Your task to perform on an android device: What's the weather going to be tomorrow? Image 0: 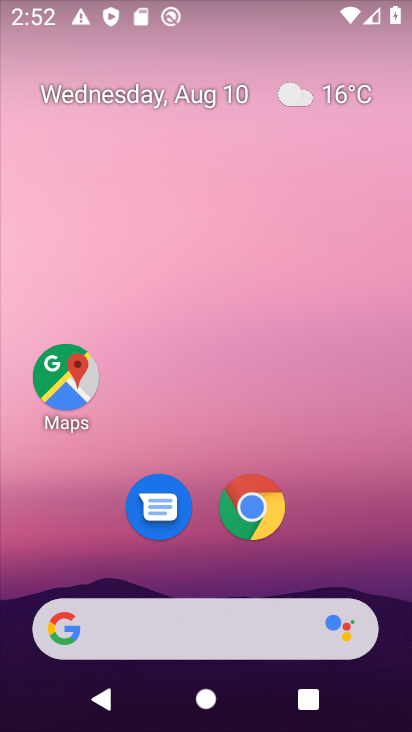
Step 0: click (343, 90)
Your task to perform on an android device: What's the weather going to be tomorrow? Image 1: 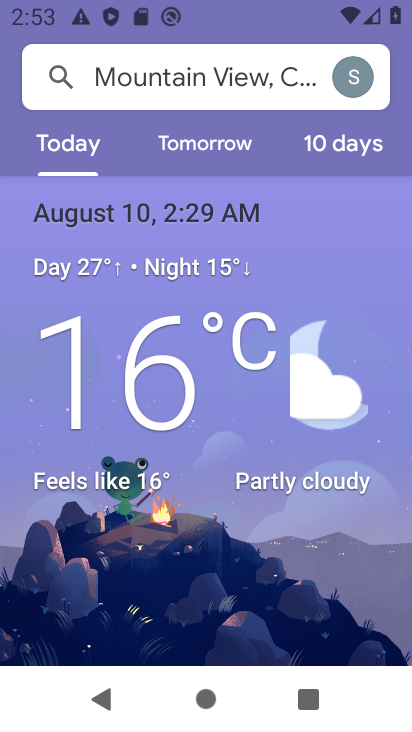
Step 1: click (247, 153)
Your task to perform on an android device: What's the weather going to be tomorrow? Image 2: 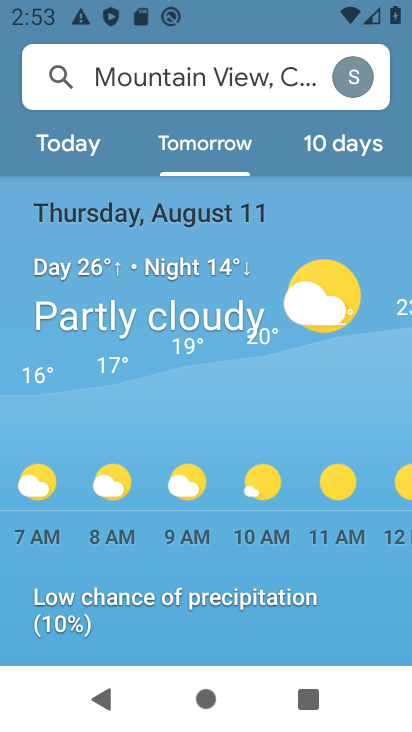
Step 2: task complete